Your task to perform on an android device: move an email to a new category in the gmail app Image 0: 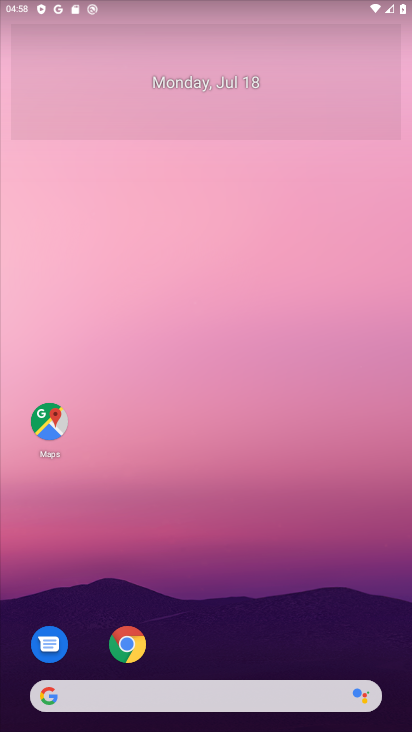
Step 0: press home button
Your task to perform on an android device: move an email to a new category in the gmail app Image 1: 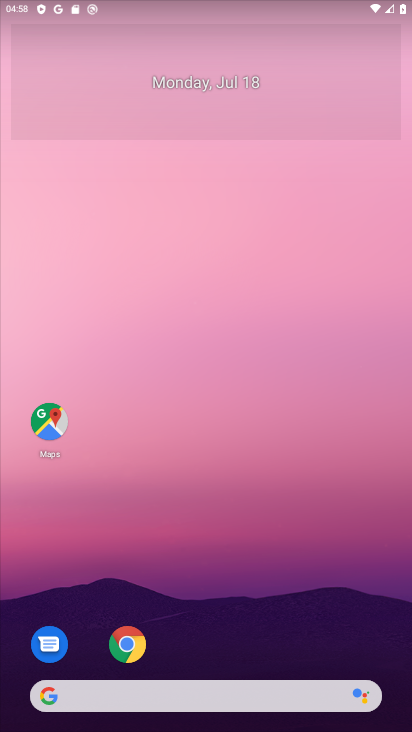
Step 1: drag from (242, 616) to (238, 116)
Your task to perform on an android device: move an email to a new category in the gmail app Image 2: 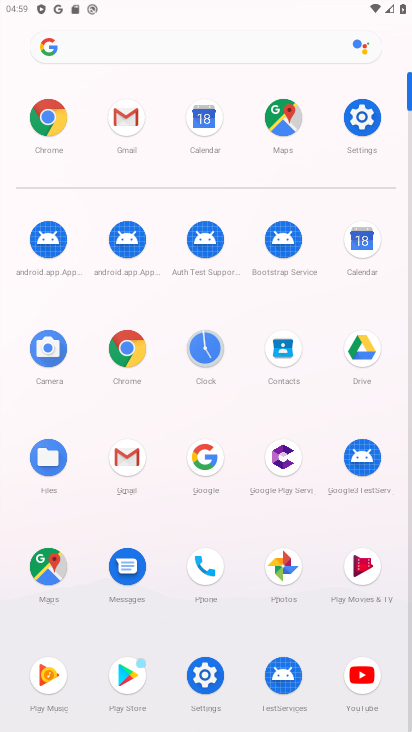
Step 2: click (122, 114)
Your task to perform on an android device: move an email to a new category in the gmail app Image 3: 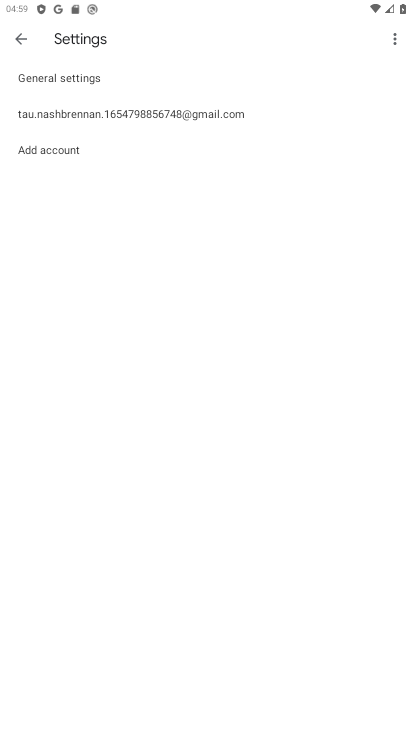
Step 3: click (16, 39)
Your task to perform on an android device: move an email to a new category in the gmail app Image 4: 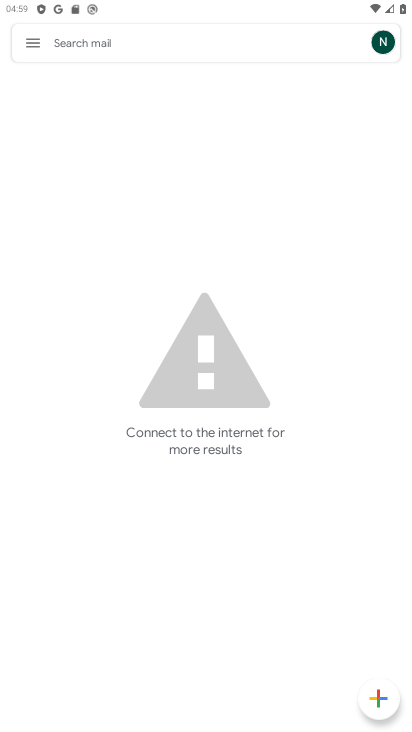
Step 4: click (16, 39)
Your task to perform on an android device: move an email to a new category in the gmail app Image 5: 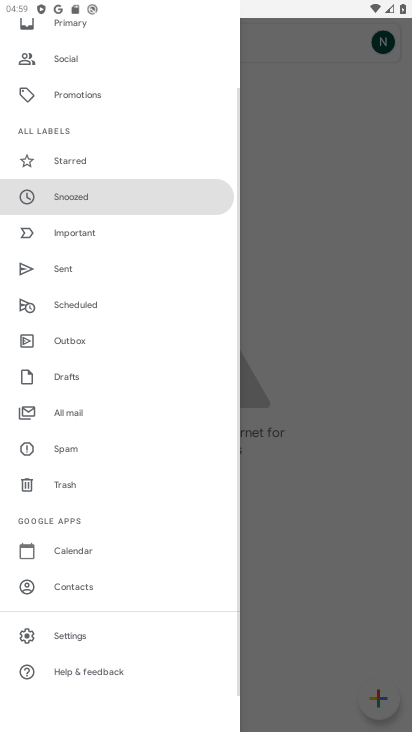
Step 5: click (60, 415)
Your task to perform on an android device: move an email to a new category in the gmail app Image 6: 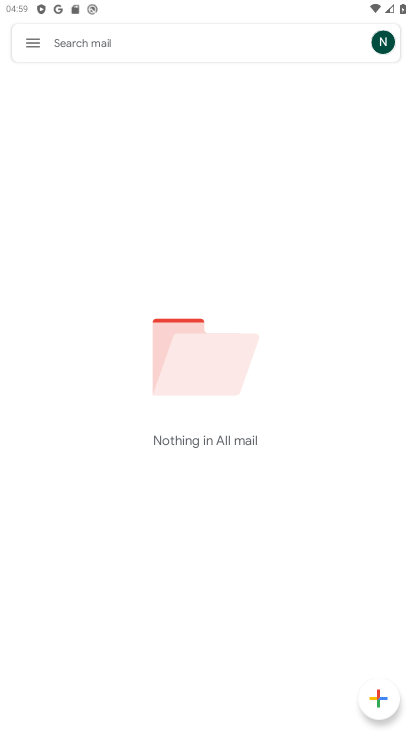
Step 6: task complete